Your task to perform on an android device: turn off translation in the chrome app Image 0: 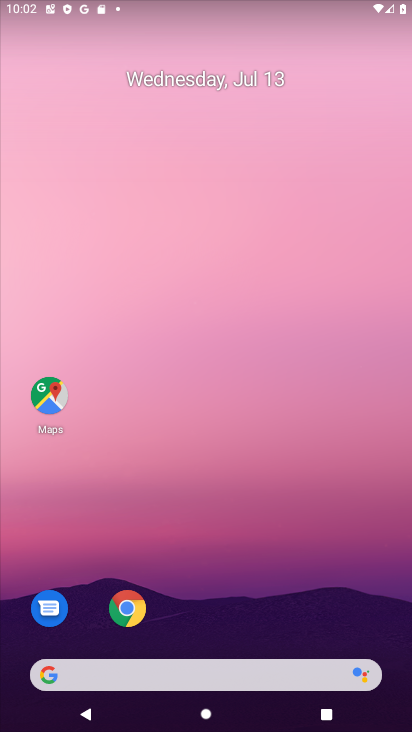
Step 0: click (124, 606)
Your task to perform on an android device: turn off translation in the chrome app Image 1: 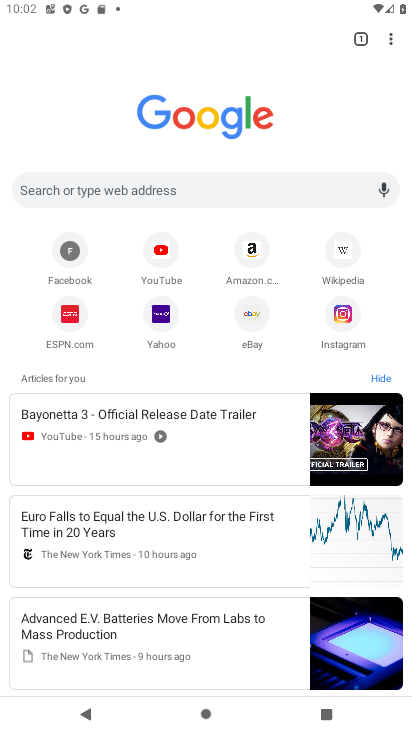
Step 1: click (391, 39)
Your task to perform on an android device: turn off translation in the chrome app Image 2: 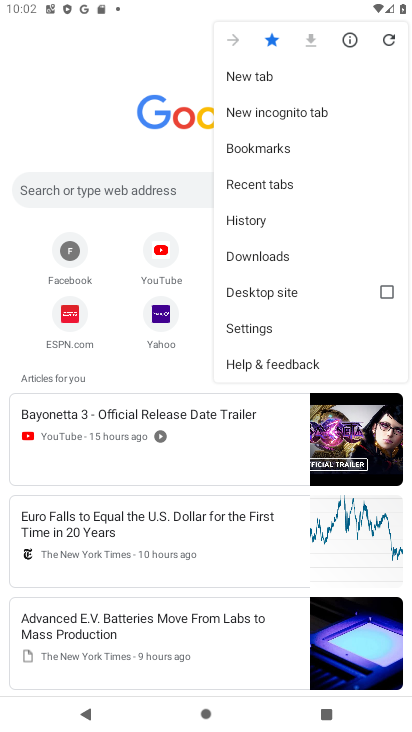
Step 2: click (246, 326)
Your task to perform on an android device: turn off translation in the chrome app Image 3: 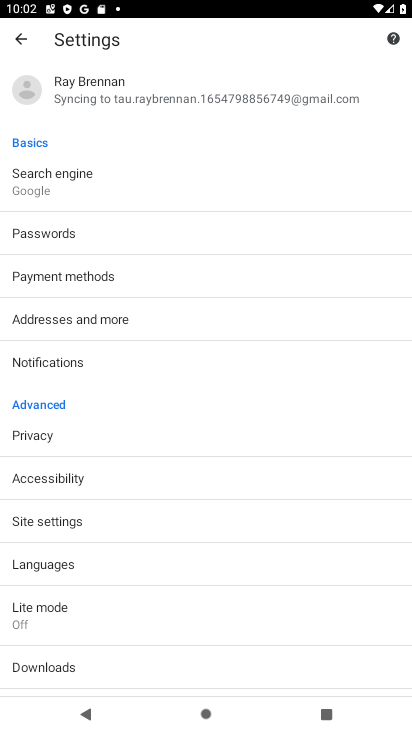
Step 3: click (49, 567)
Your task to perform on an android device: turn off translation in the chrome app Image 4: 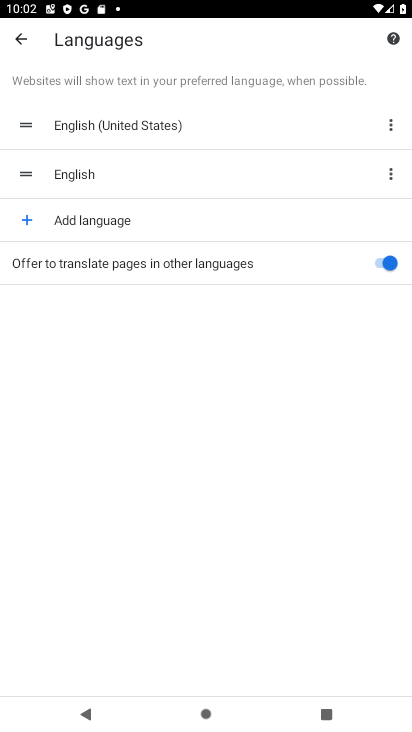
Step 4: click (383, 263)
Your task to perform on an android device: turn off translation in the chrome app Image 5: 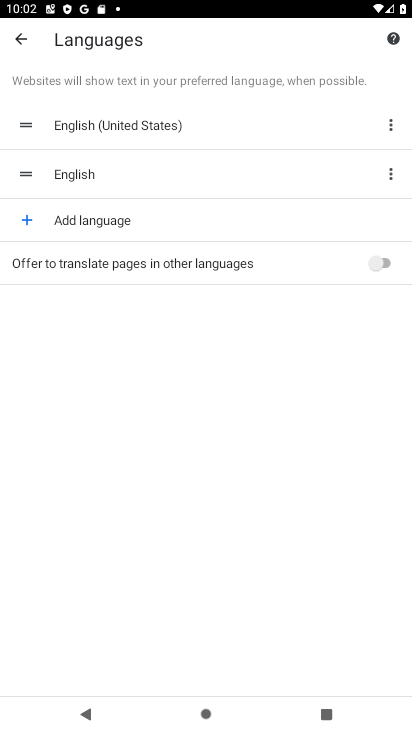
Step 5: task complete